Your task to perform on an android device: Check the news Image 0: 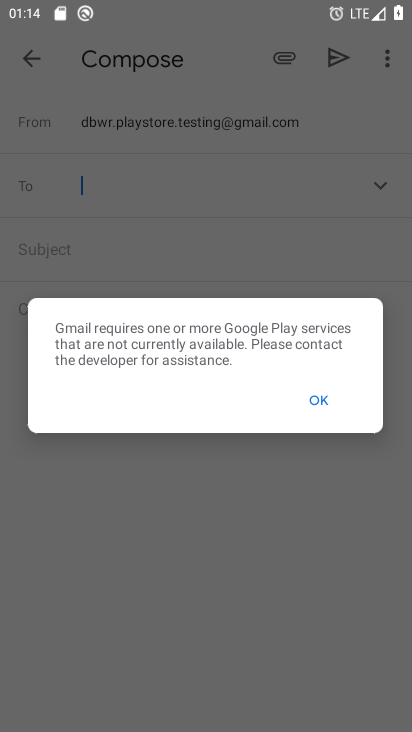
Step 0: press home button
Your task to perform on an android device: Check the news Image 1: 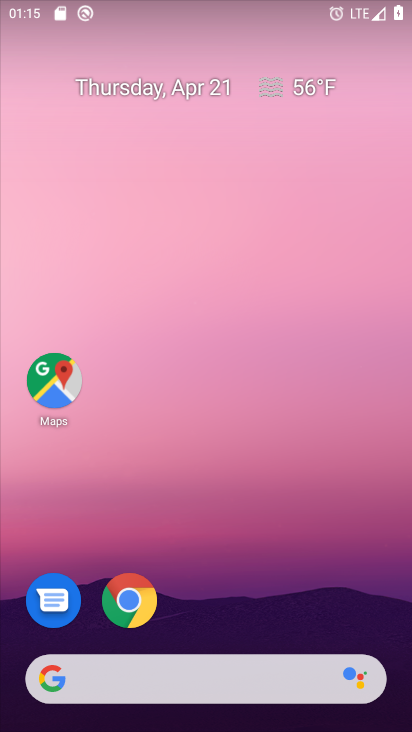
Step 1: click (51, 671)
Your task to perform on an android device: Check the news Image 2: 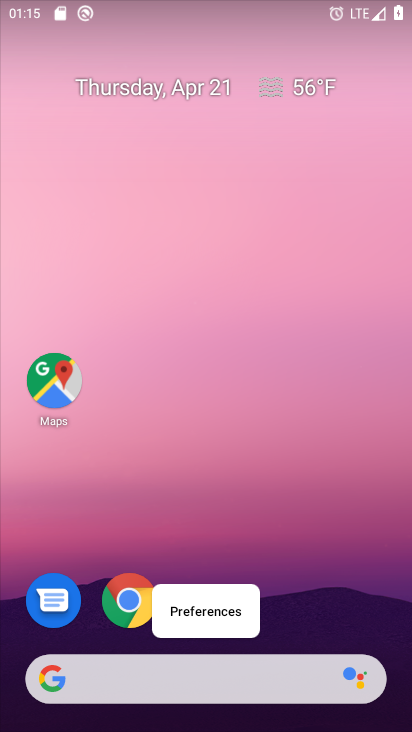
Step 2: click (52, 674)
Your task to perform on an android device: Check the news Image 3: 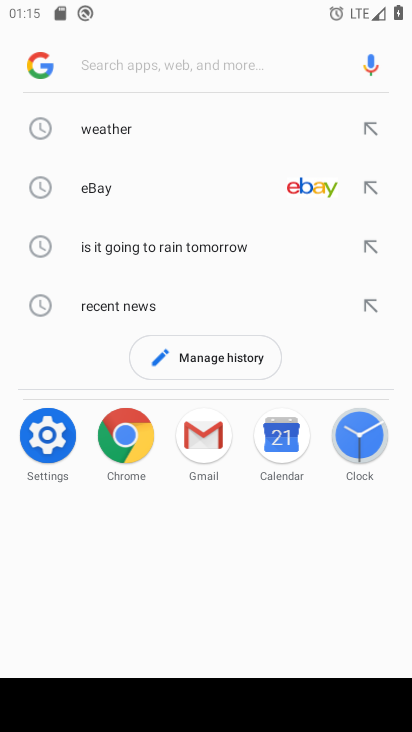
Step 3: click (138, 305)
Your task to perform on an android device: Check the news Image 4: 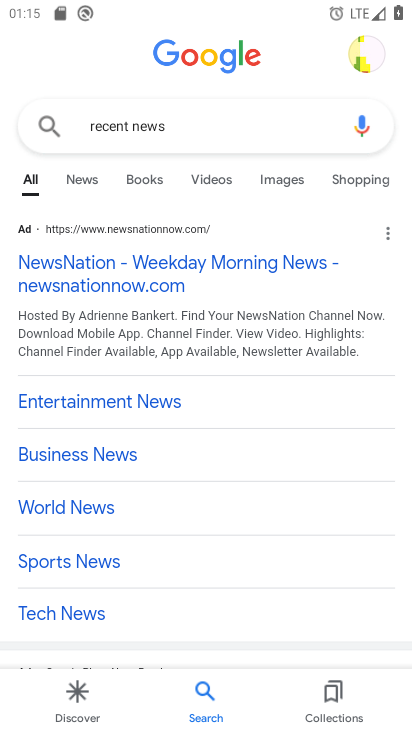
Step 4: click (92, 176)
Your task to perform on an android device: Check the news Image 5: 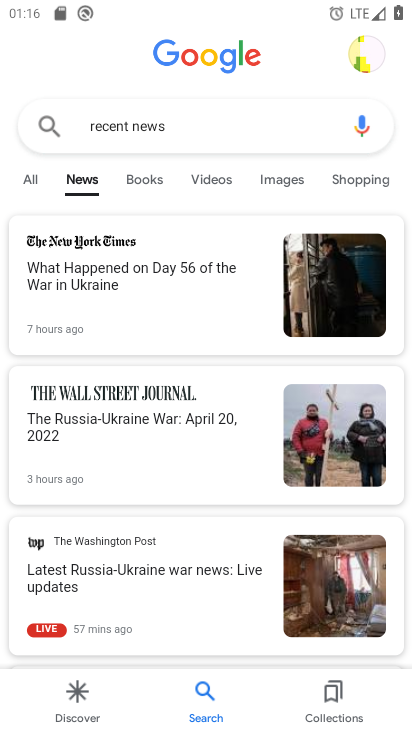
Step 5: task complete